Your task to perform on an android device: Open ESPN.com Image 0: 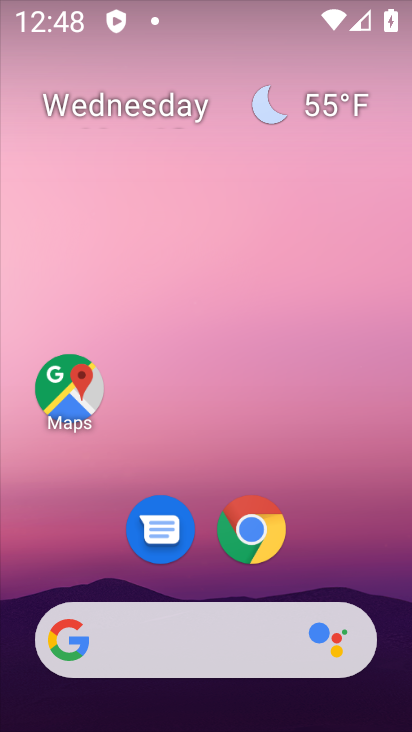
Step 0: click (245, 533)
Your task to perform on an android device: Open ESPN.com Image 1: 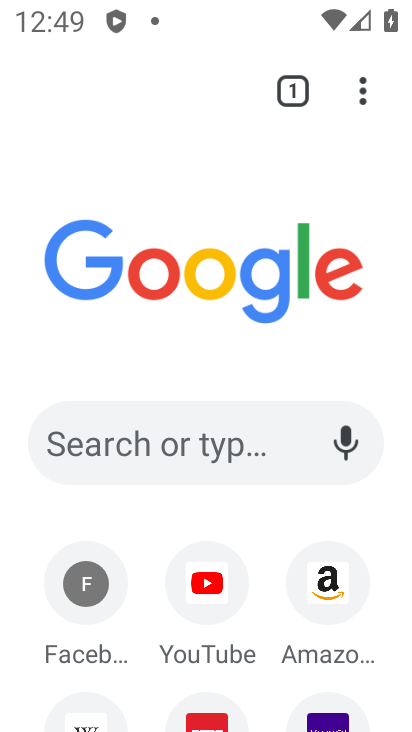
Step 1: drag from (131, 678) to (129, 508)
Your task to perform on an android device: Open ESPN.com Image 2: 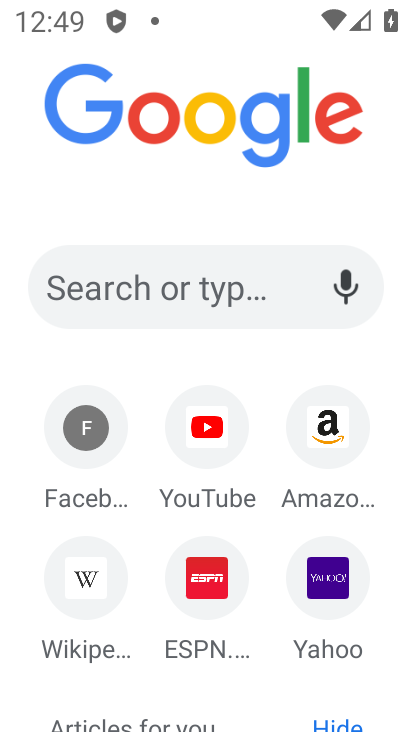
Step 2: click (207, 579)
Your task to perform on an android device: Open ESPN.com Image 3: 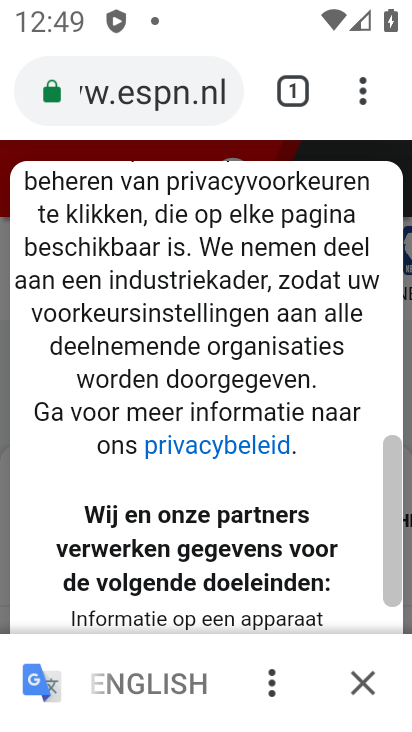
Step 3: drag from (187, 500) to (177, 310)
Your task to perform on an android device: Open ESPN.com Image 4: 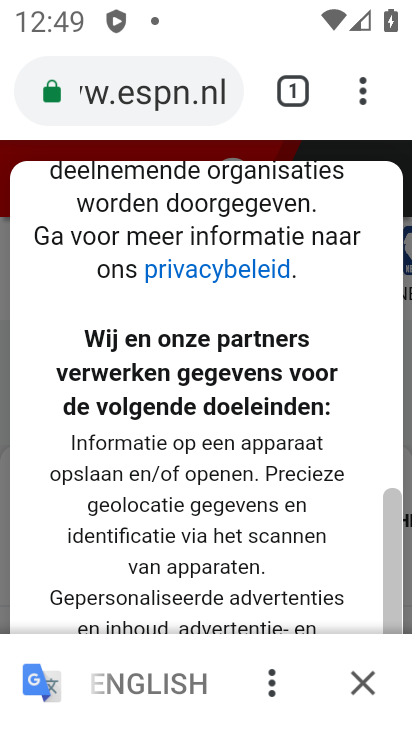
Step 4: drag from (212, 605) to (199, 242)
Your task to perform on an android device: Open ESPN.com Image 5: 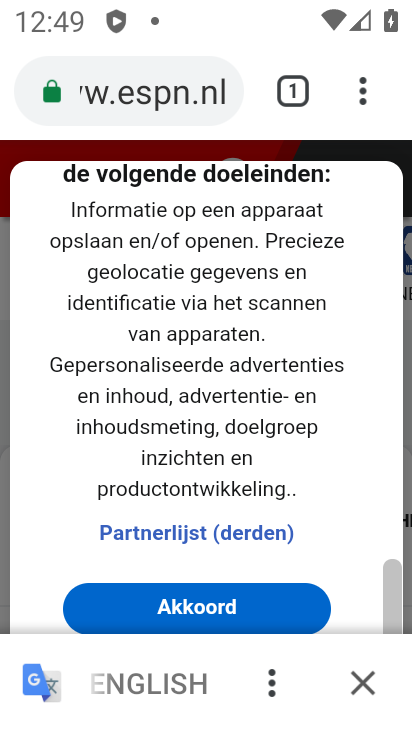
Step 5: click (239, 611)
Your task to perform on an android device: Open ESPN.com Image 6: 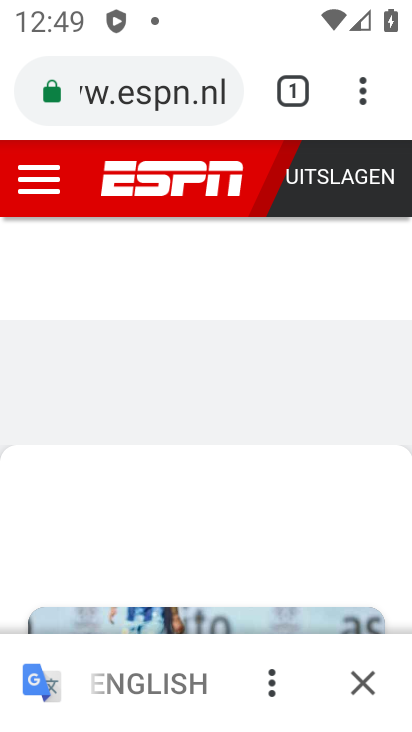
Step 6: task complete